Your task to perform on an android device: turn pop-ups off in chrome Image 0: 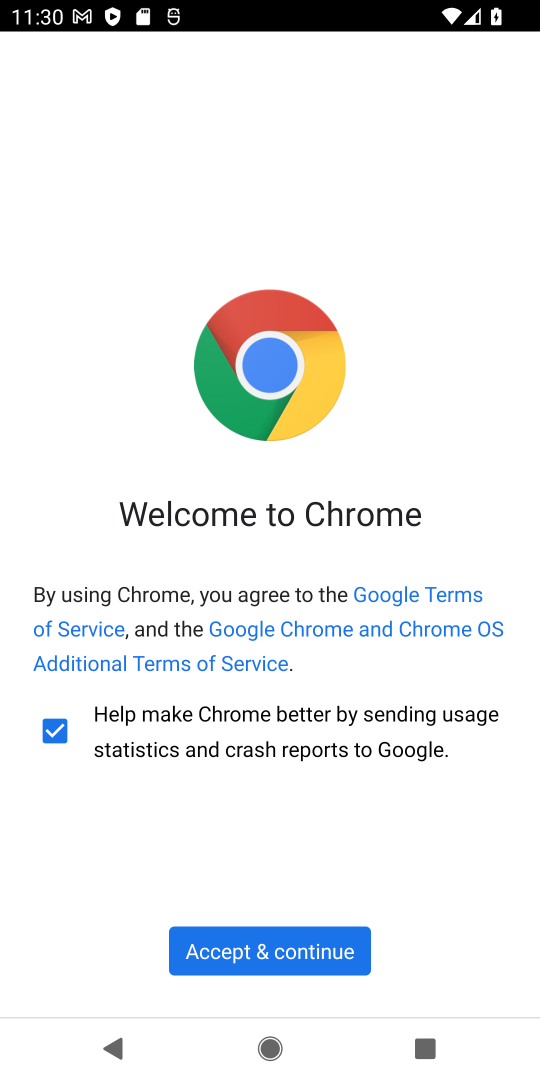
Step 0: click (313, 947)
Your task to perform on an android device: turn pop-ups off in chrome Image 1: 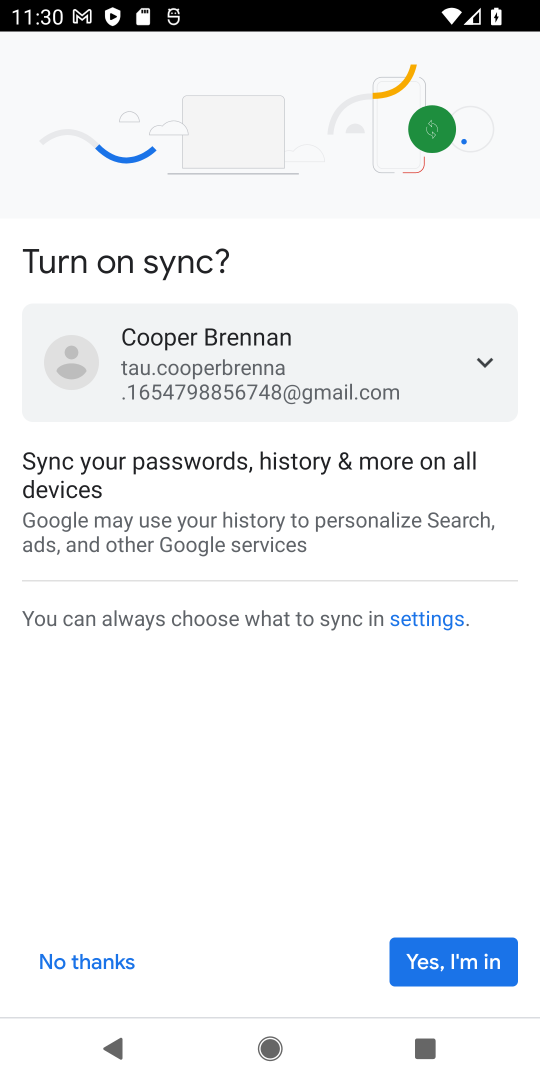
Step 1: click (477, 958)
Your task to perform on an android device: turn pop-ups off in chrome Image 2: 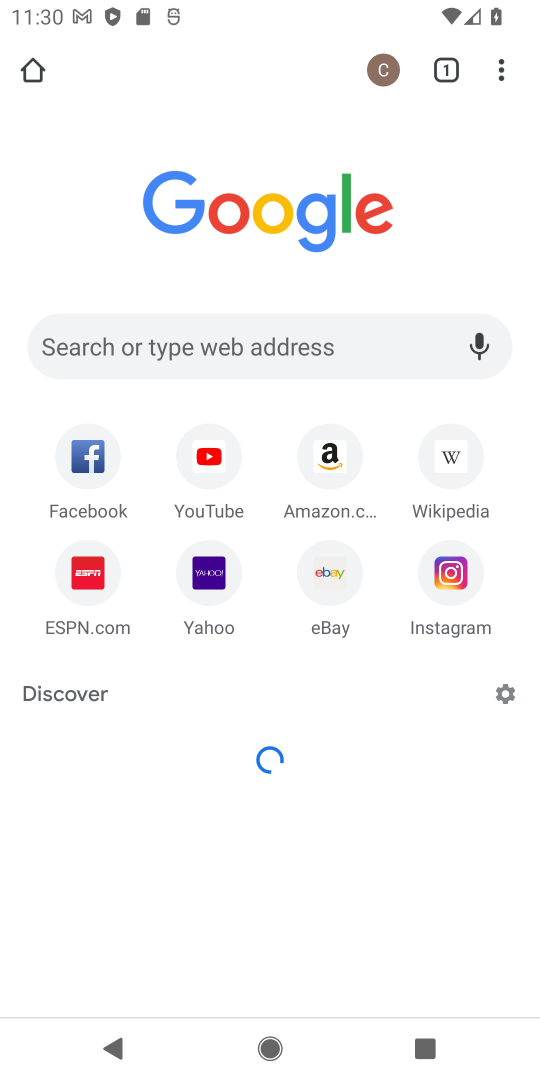
Step 2: click (505, 53)
Your task to perform on an android device: turn pop-ups off in chrome Image 3: 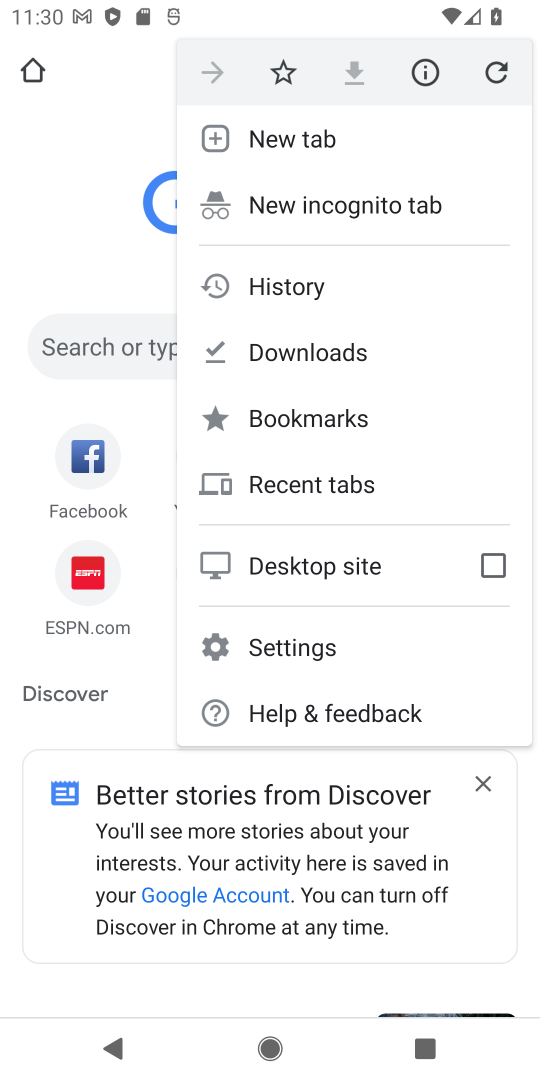
Step 3: click (294, 654)
Your task to perform on an android device: turn pop-ups off in chrome Image 4: 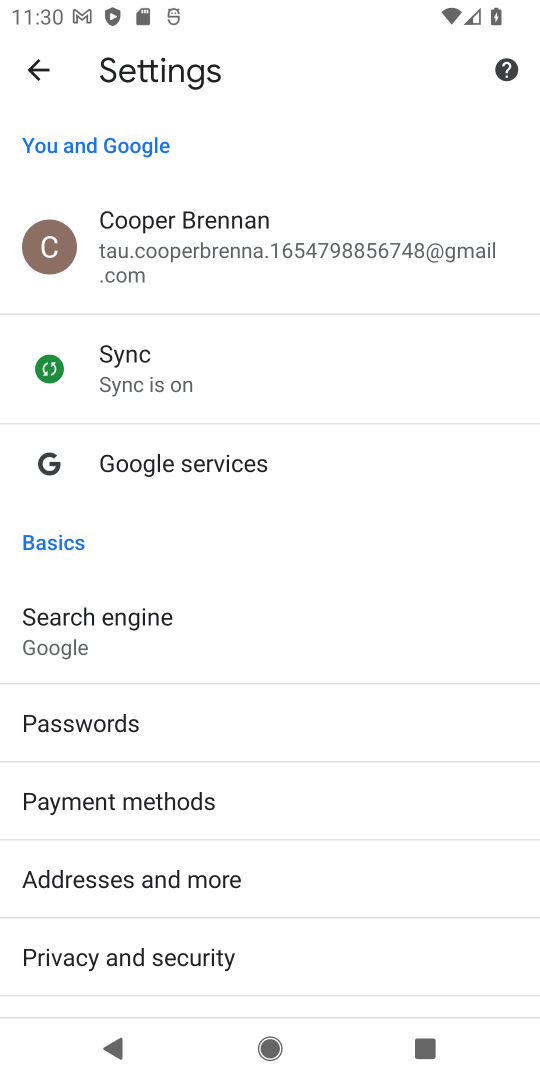
Step 4: drag from (223, 914) to (274, 343)
Your task to perform on an android device: turn pop-ups off in chrome Image 5: 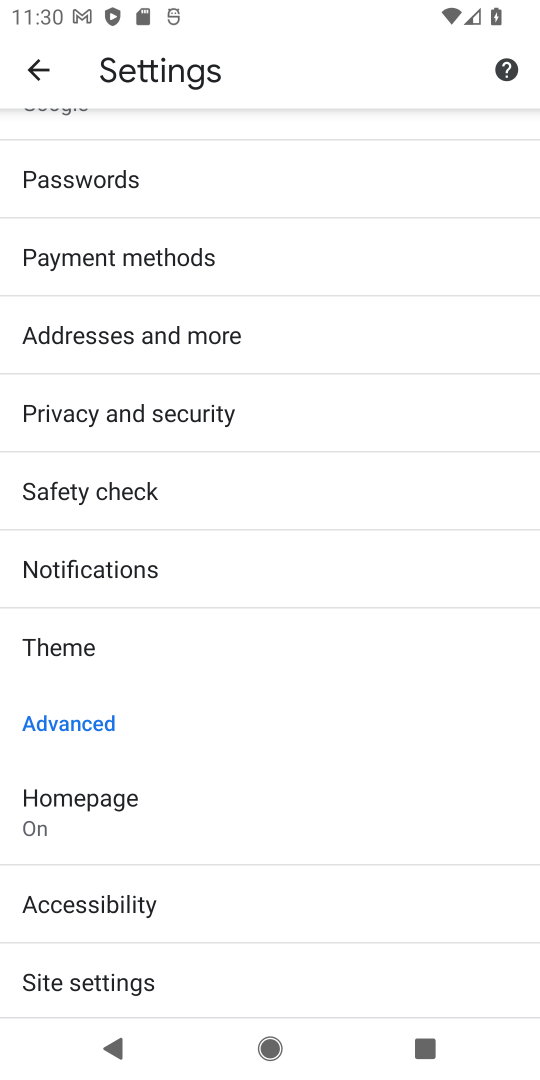
Step 5: drag from (160, 917) to (180, 749)
Your task to perform on an android device: turn pop-ups off in chrome Image 6: 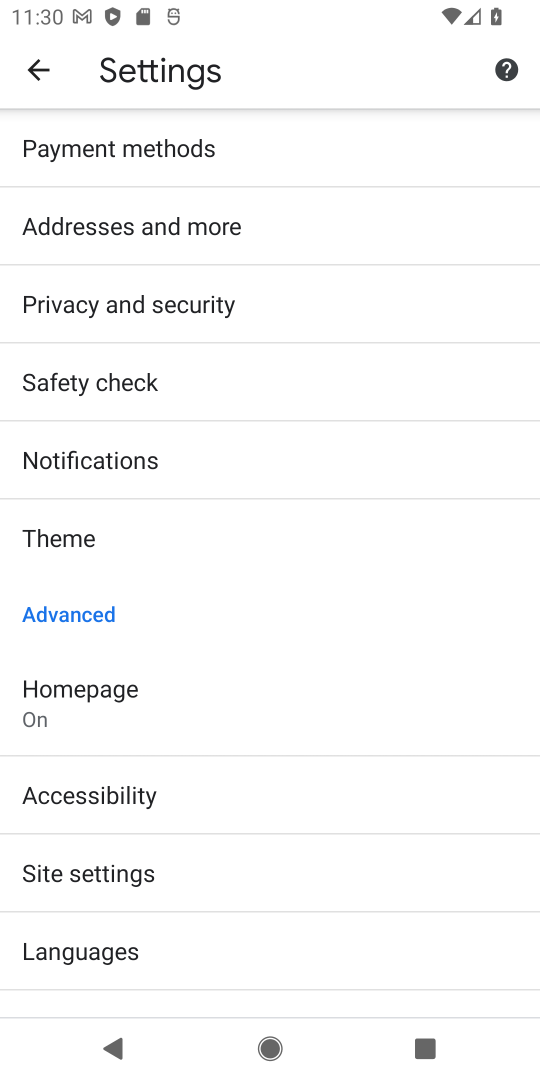
Step 6: click (120, 878)
Your task to perform on an android device: turn pop-ups off in chrome Image 7: 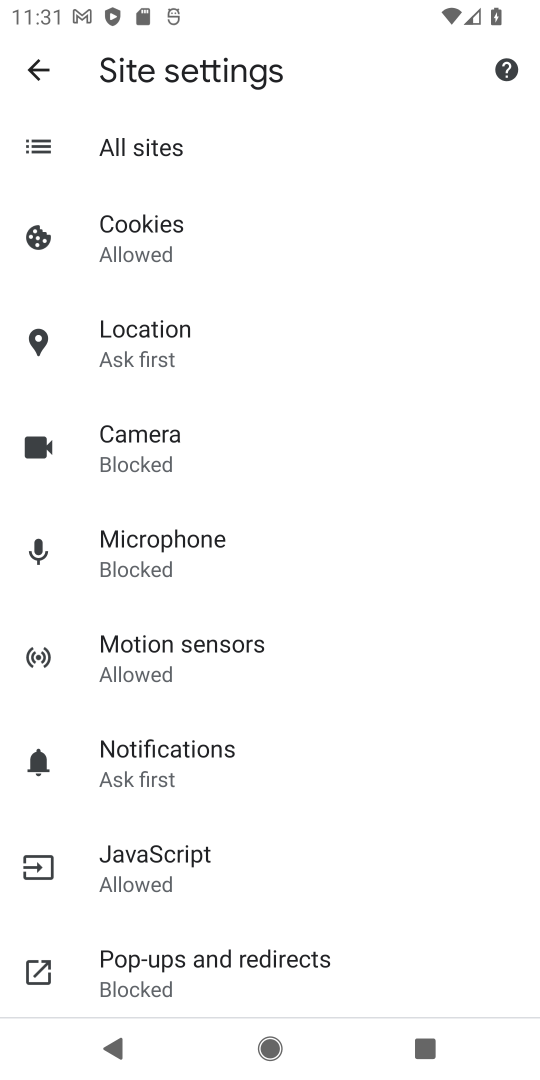
Step 7: click (184, 973)
Your task to perform on an android device: turn pop-ups off in chrome Image 8: 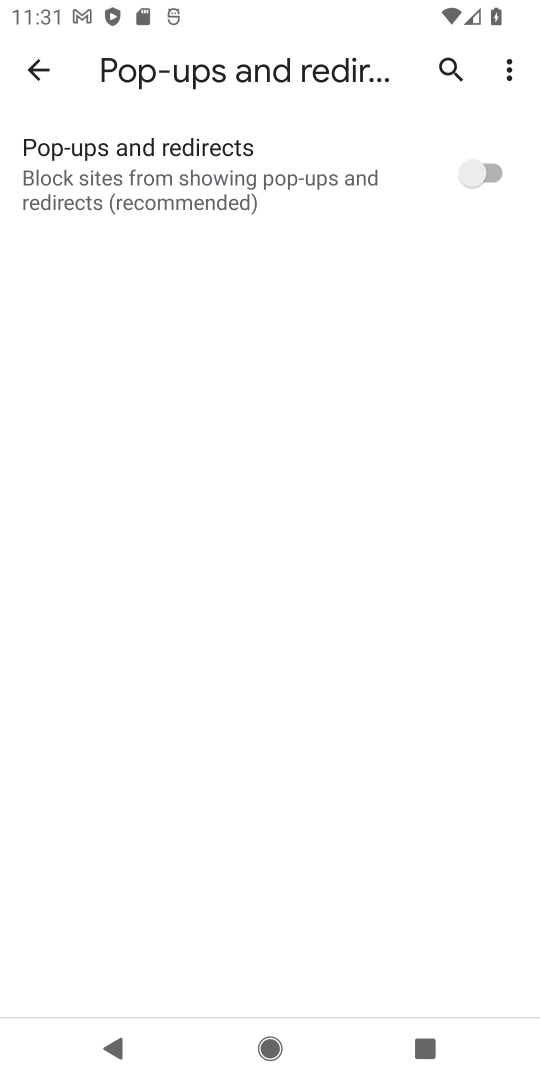
Step 8: task complete